Your task to perform on an android device: uninstall "Facebook Lite" Image 0: 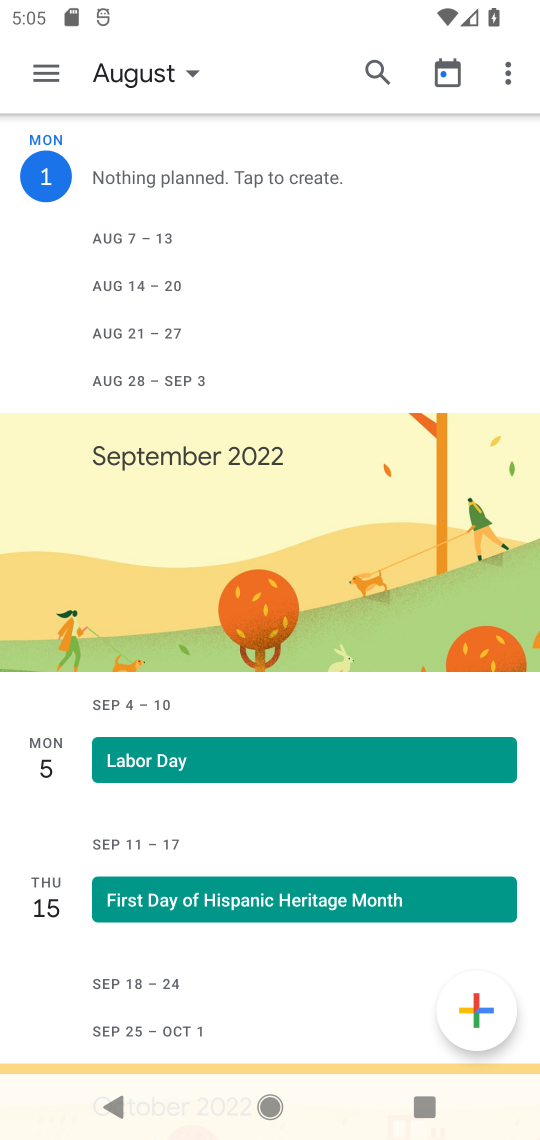
Step 0: press back button
Your task to perform on an android device: uninstall "Facebook Lite" Image 1: 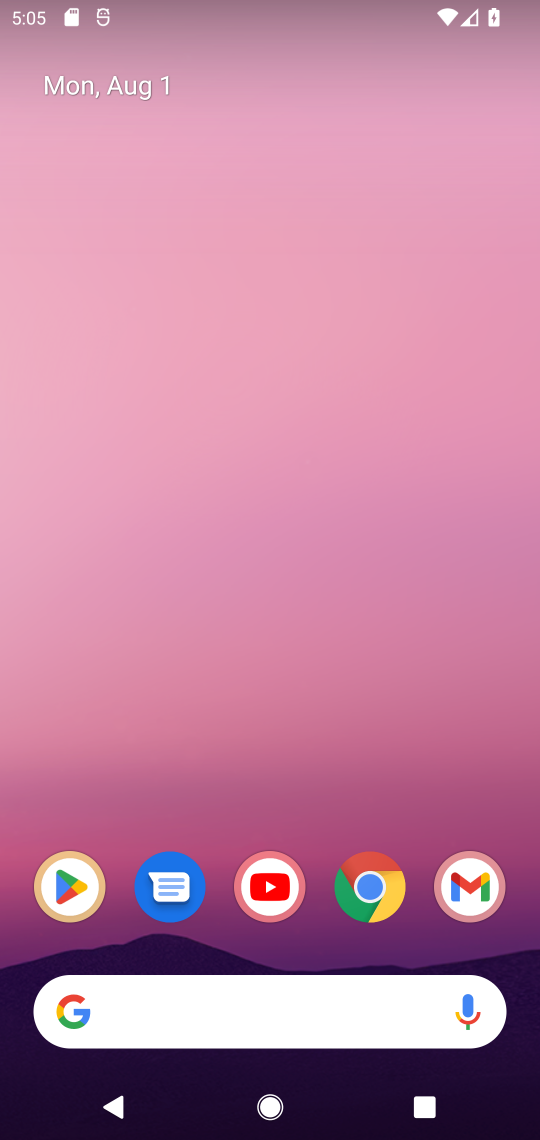
Step 1: press home button
Your task to perform on an android device: uninstall "Facebook Lite" Image 2: 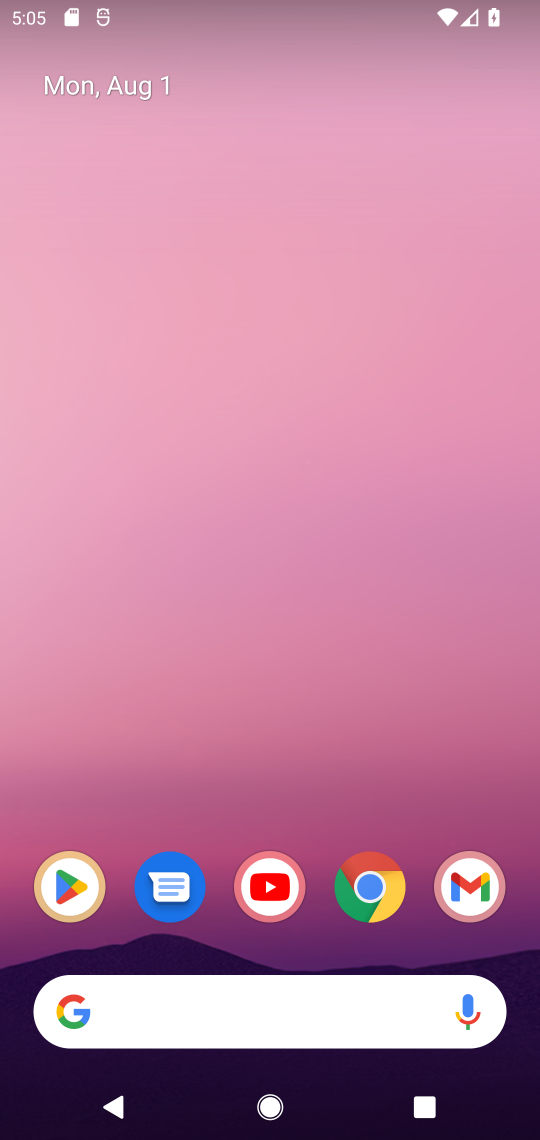
Step 2: click (60, 889)
Your task to perform on an android device: uninstall "Facebook Lite" Image 3: 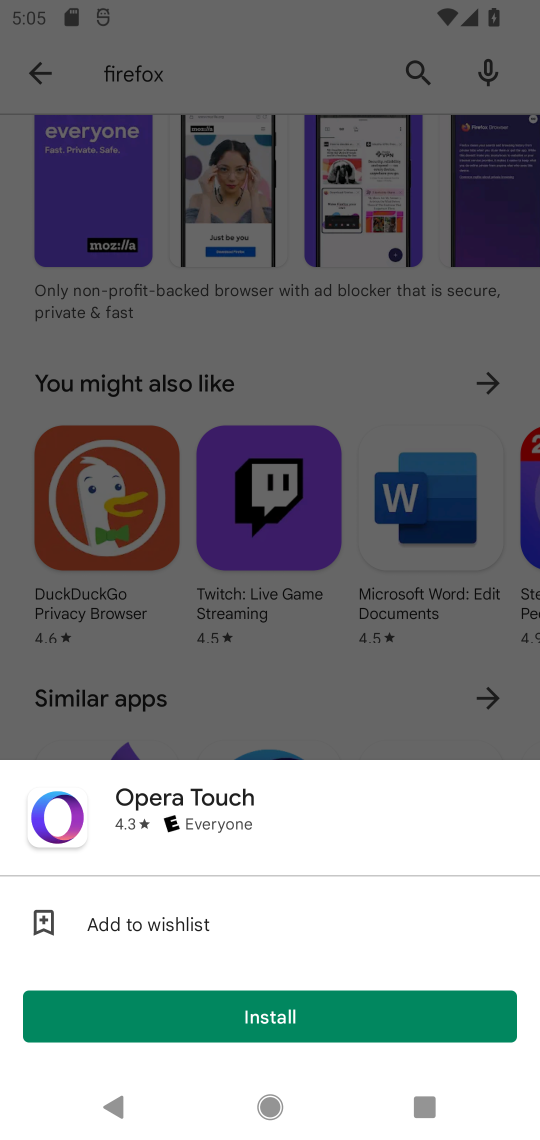
Step 3: click (46, 77)
Your task to perform on an android device: uninstall "Facebook Lite" Image 4: 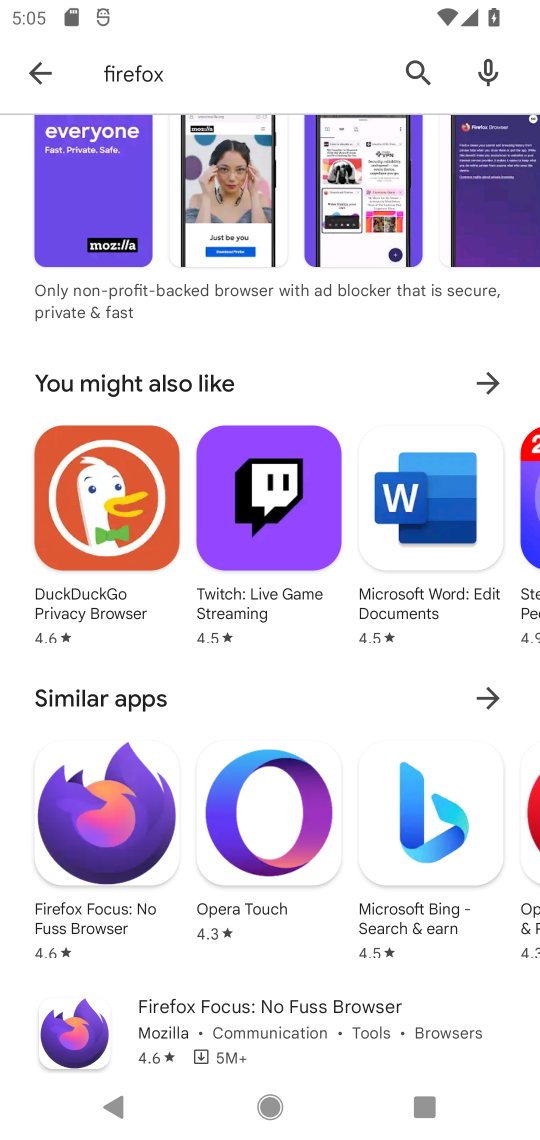
Step 4: click (46, 77)
Your task to perform on an android device: uninstall "Facebook Lite" Image 5: 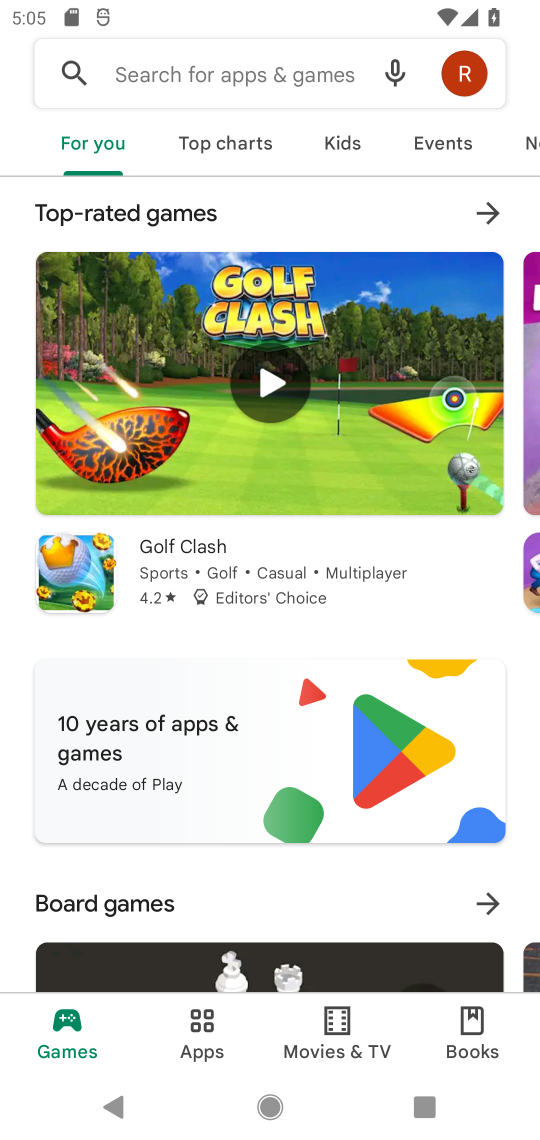
Step 5: click (217, 59)
Your task to perform on an android device: uninstall "Facebook Lite" Image 6: 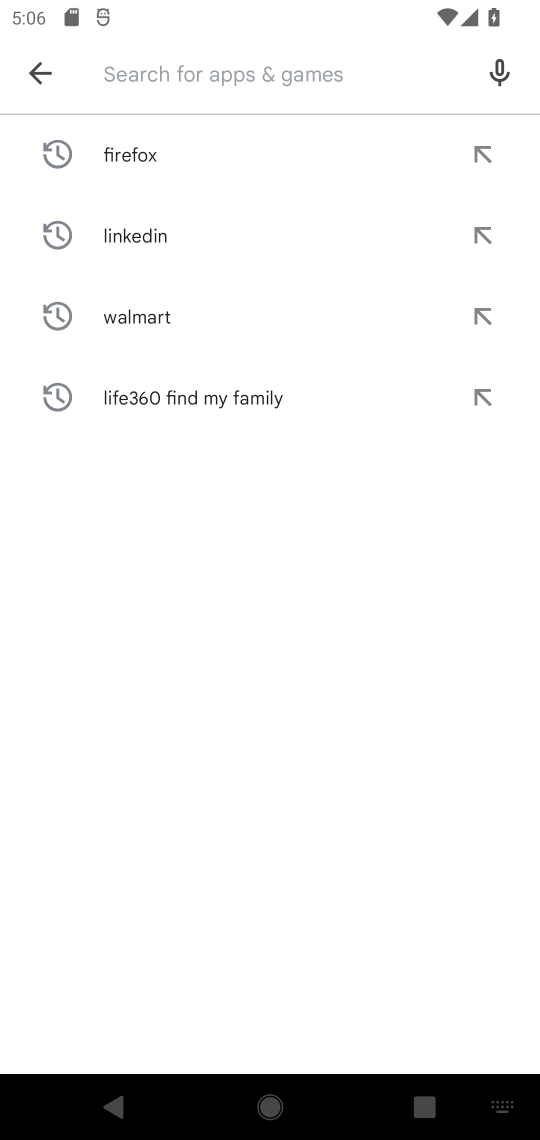
Step 6: type "acebook Lite"
Your task to perform on an android device: uninstall "Facebook Lite" Image 7: 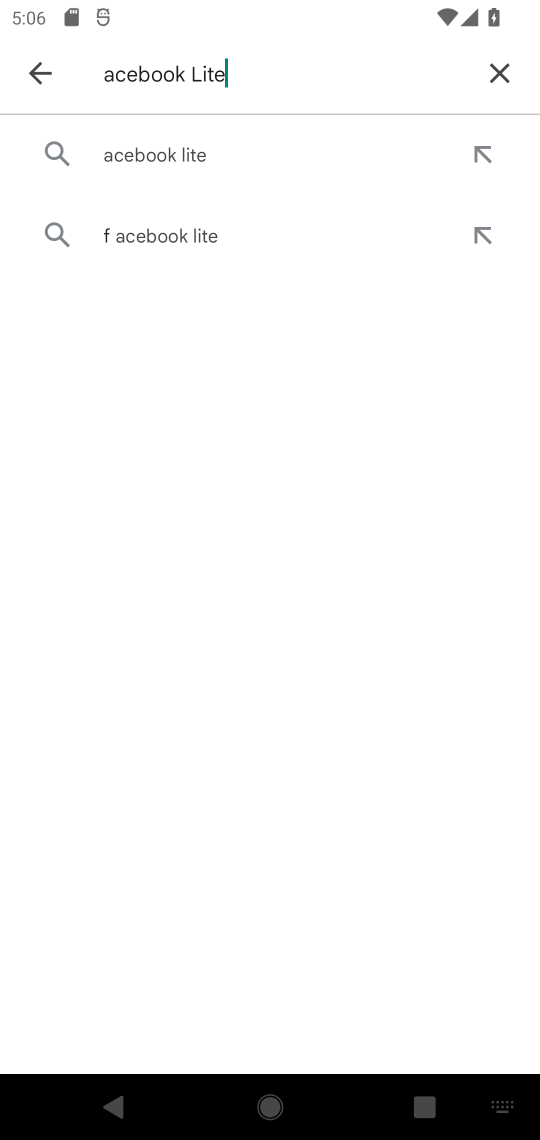
Step 7: click (165, 155)
Your task to perform on an android device: uninstall "Facebook Lite" Image 8: 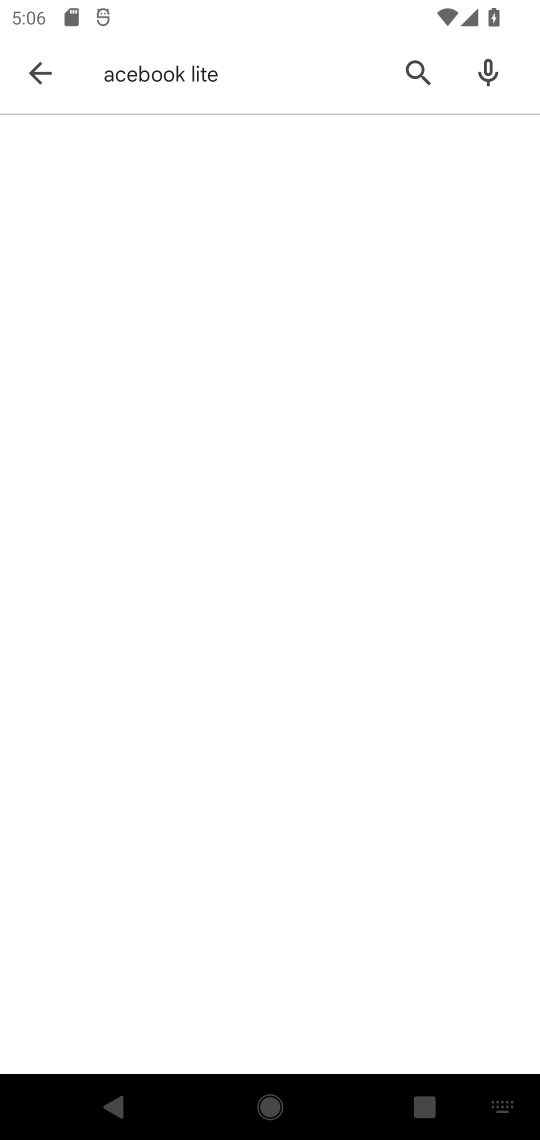
Step 8: click (165, 155)
Your task to perform on an android device: uninstall "Facebook Lite" Image 9: 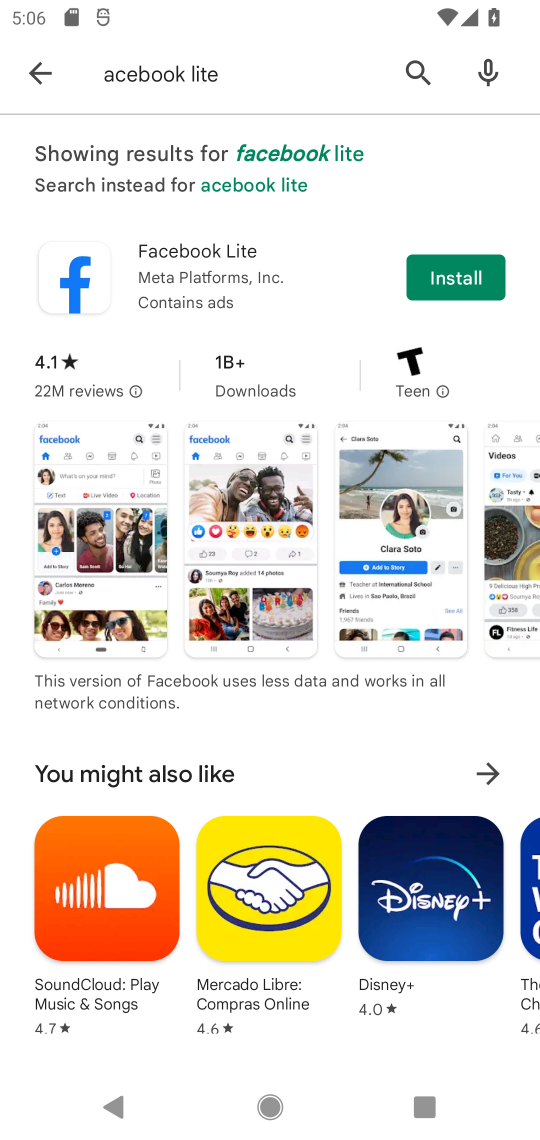
Step 9: task complete